Your task to perform on an android device: Go to Android settings Image 0: 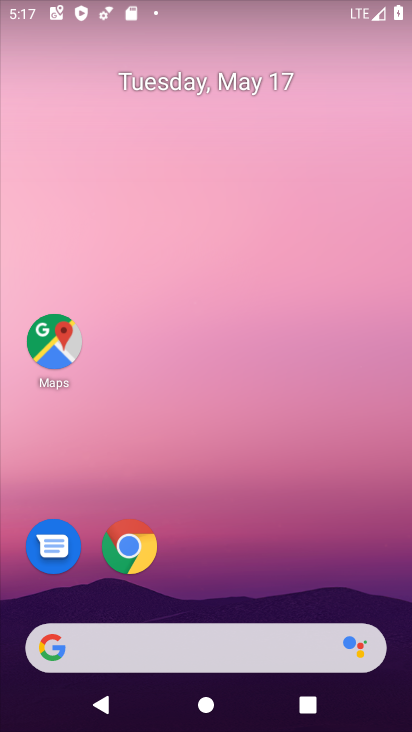
Step 0: drag from (216, 585) to (314, 82)
Your task to perform on an android device: Go to Android settings Image 1: 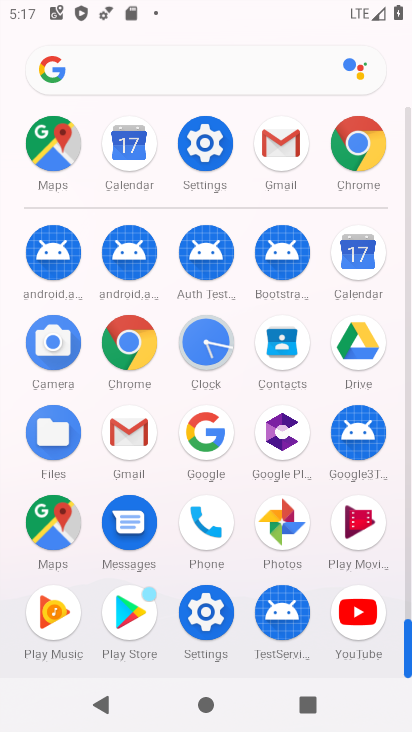
Step 1: click (205, 151)
Your task to perform on an android device: Go to Android settings Image 2: 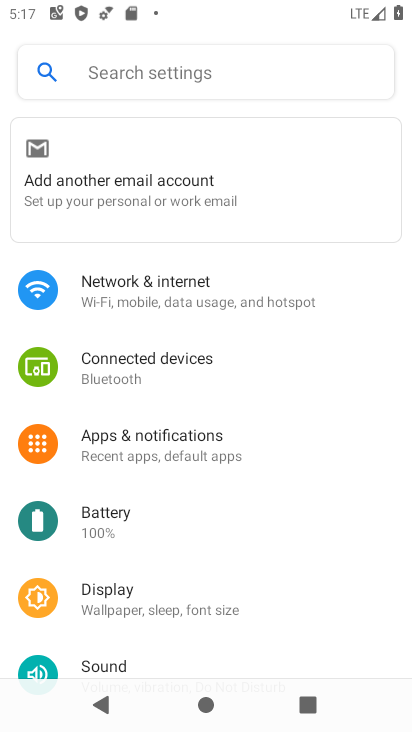
Step 2: drag from (169, 597) to (253, 24)
Your task to perform on an android device: Go to Android settings Image 3: 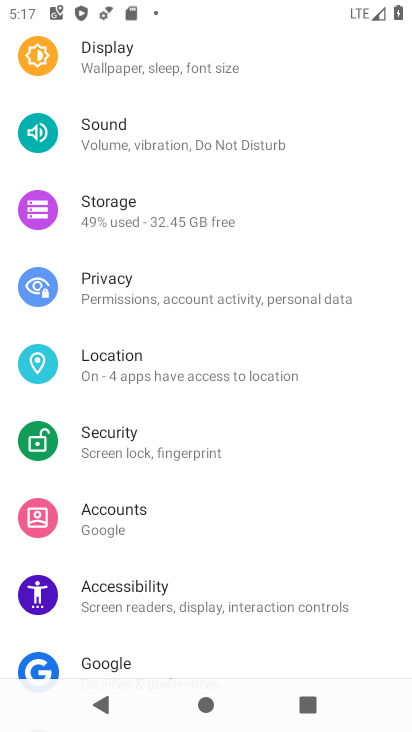
Step 3: drag from (174, 604) to (207, 39)
Your task to perform on an android device: Go to Android settings Image 4: 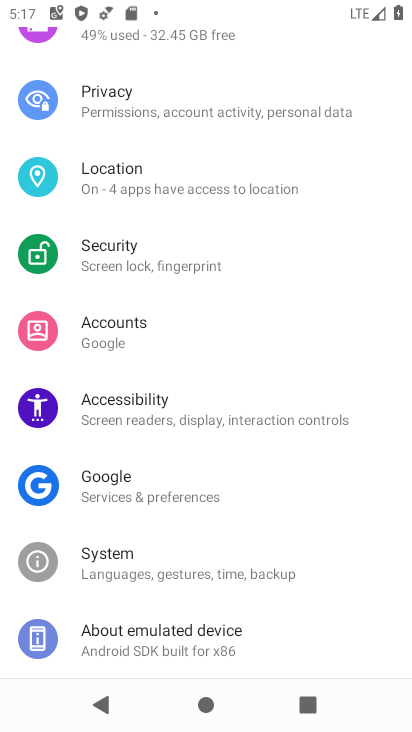
Step 4: click (139, 636)
Your task to perform on an android device: Go to Android settings Image 5: 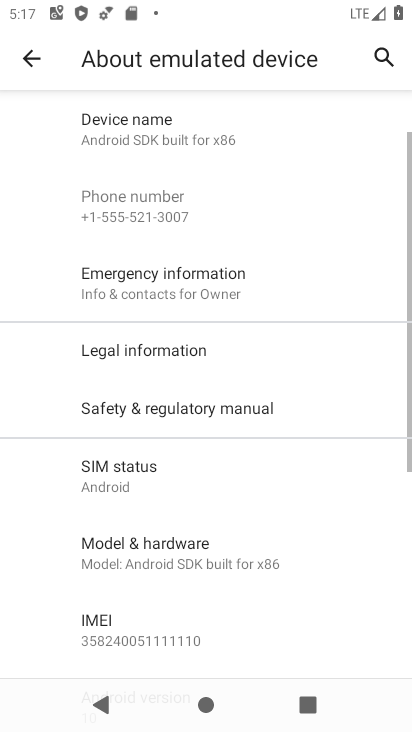
Step 5: drag from (191, 571) to (243, 54)
Your task to perform on an android device: Go to Android settings Image 6: 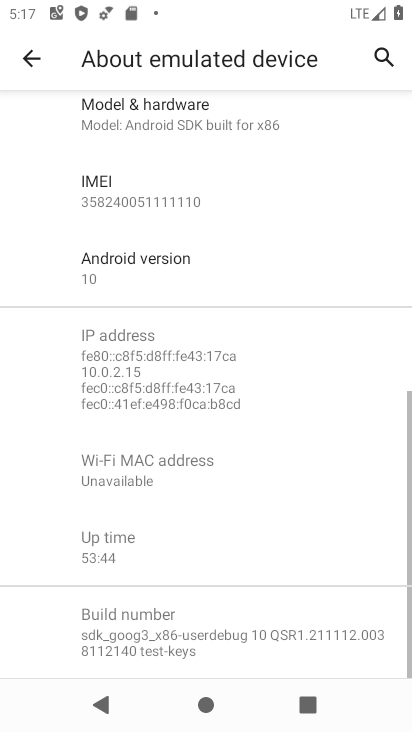
Step 6: click (123, 279)
Your task to perform on an android device: Go to Android settings Image 7: 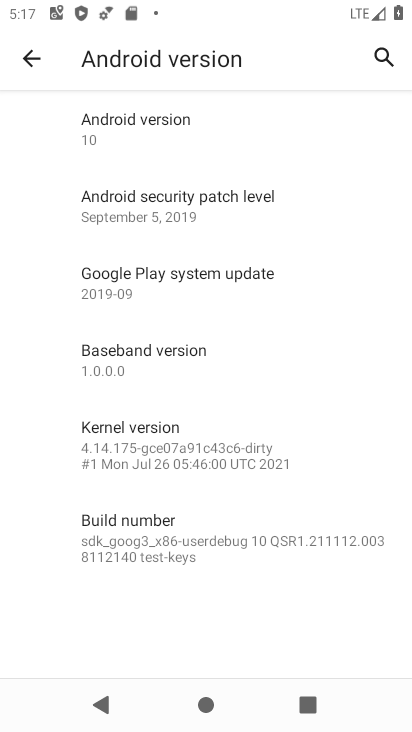
Step 7: task complete